Your task to perform on an android device: Open maps Image 0: 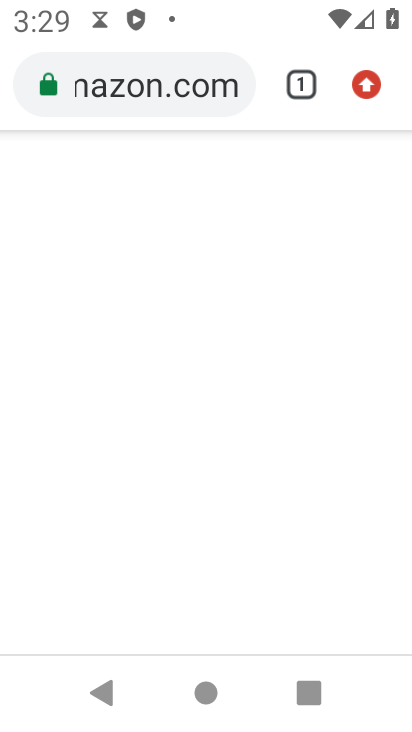
Step 0: press back button
Your task to perform on an android device: Open maps Image 1: 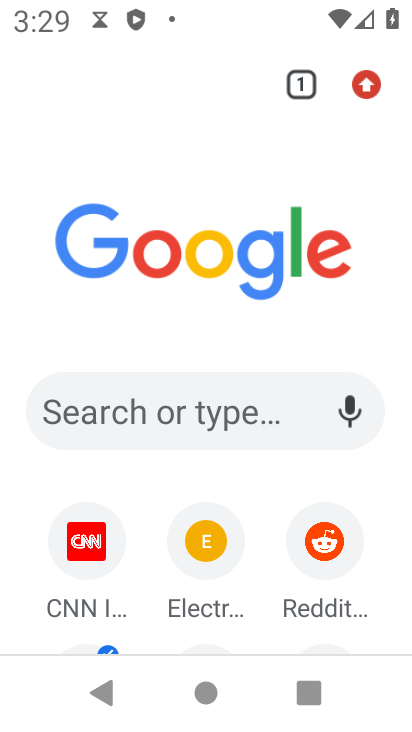
Step 1: press back button
Your task to perform on an android device: Open maps Image 2: 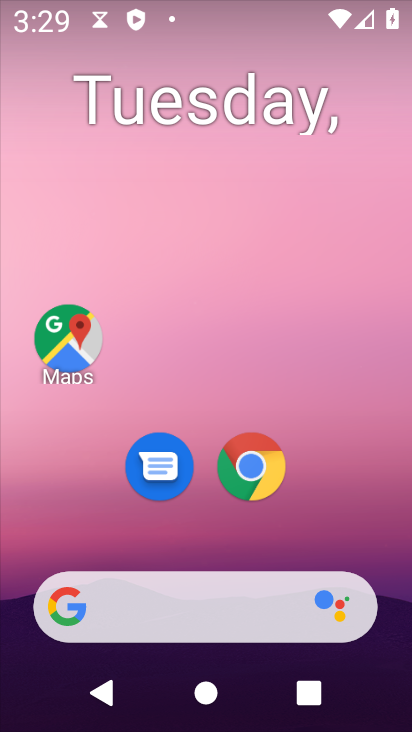
Step 2: click (66, 325)
Your task to perform on an android device: Open maps Image 3: 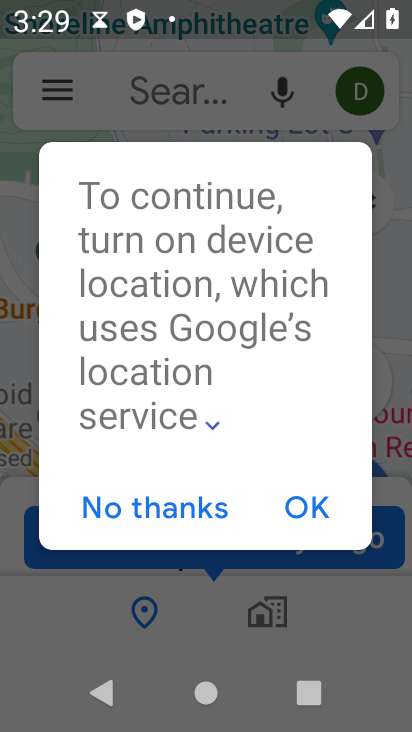
Step 3: click (303, 492)
Your task to perform on an android device: Open maps Image 4: 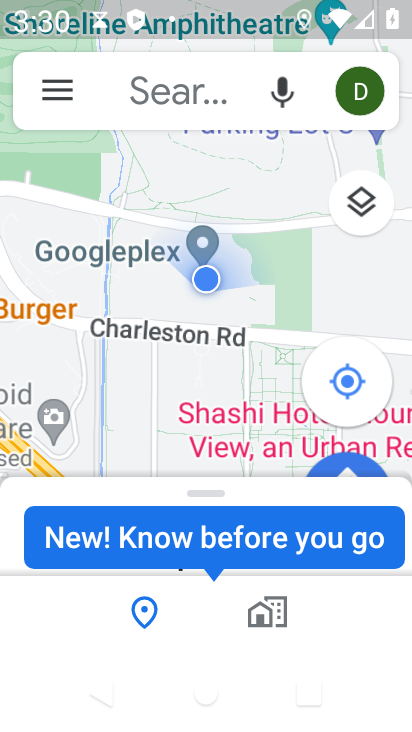
Step 4: task complete